Your task to perform on an android device: change alarm snooze length Image 0: 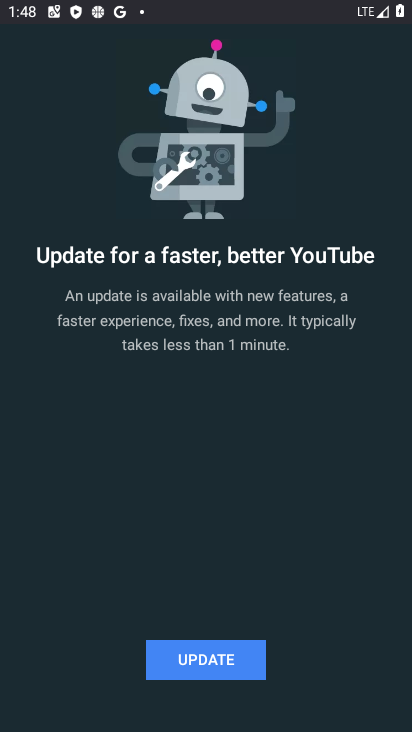
Step 0: press back button
Your task to perform on an android device: change alarm snooze length Image 1: 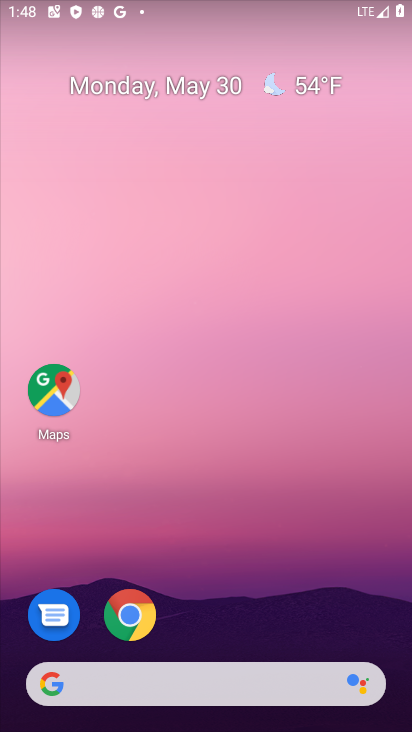
Step 1: drag from (278, 547) to (271, 10)
Your task to perform on an android device: change alarm snooze length Image 2: 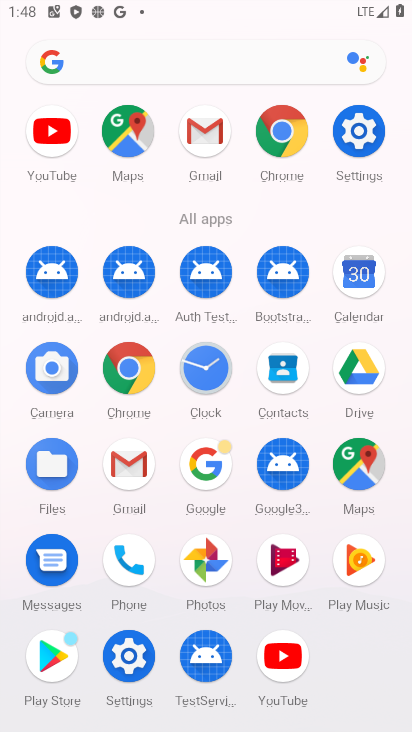
Step 2: click (213, 387)
Your task to perform on an android device: change alarm snooze length Image 3: 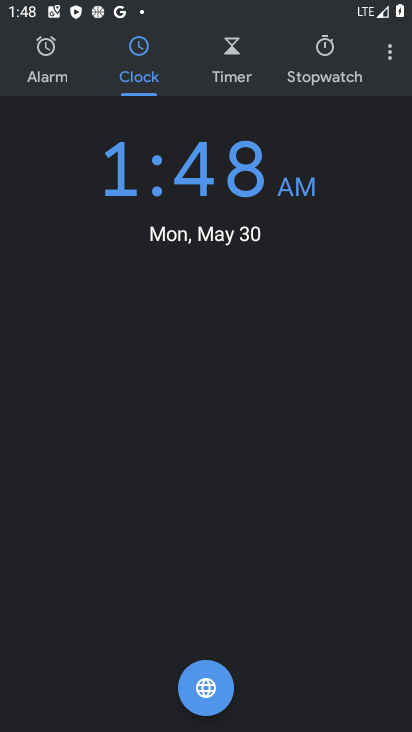
Step 3: click (410, 76)
Your task to perform on an android device: change alarm snooze length Image 4: 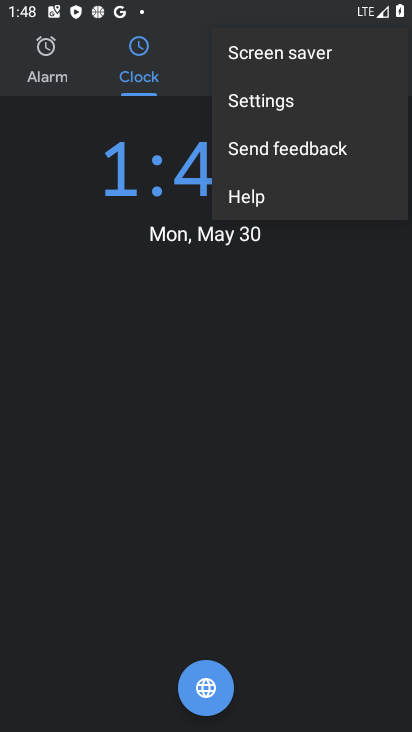
Step 4: click (275, 109)
Your task to perform on an android device: change alarm snooze length Image 5: 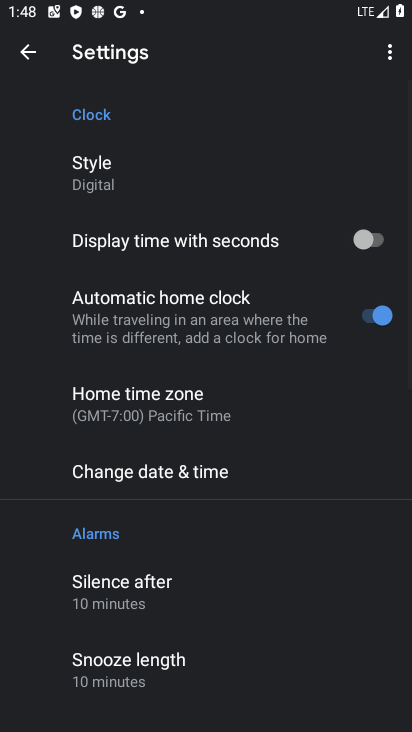
Step 5: drag from (212, 605) to (192, 412)
Your task to perform on an android device: change alarm snooze length Image 6: 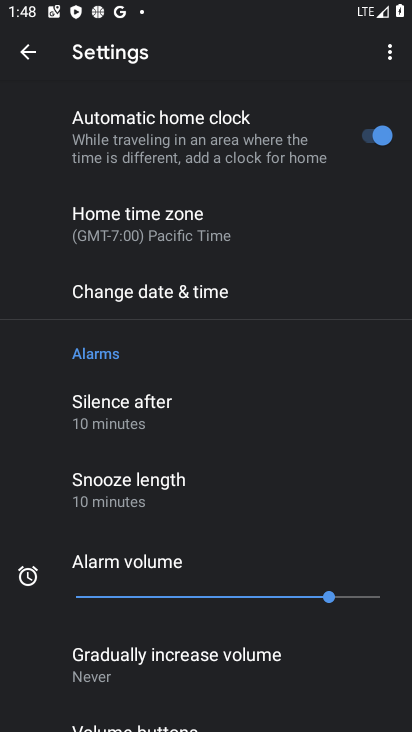
Step 6: click (168, 494)
Your task to perform on an android device: change alarm snooze length Image 7: 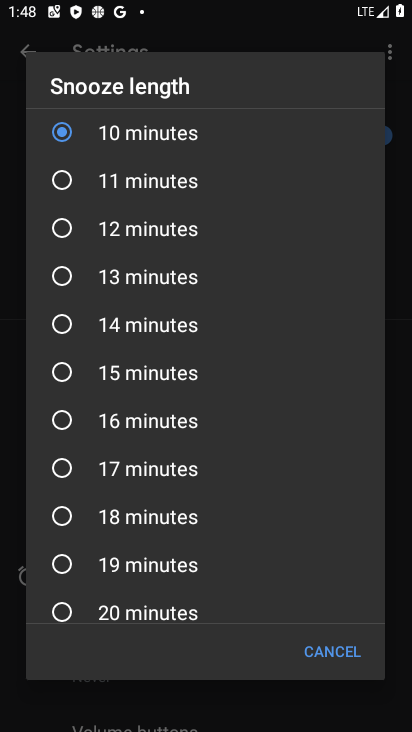
Step 7: click (125, 374)
Your task to perform on an android device: change alarm snooze length Image 8: 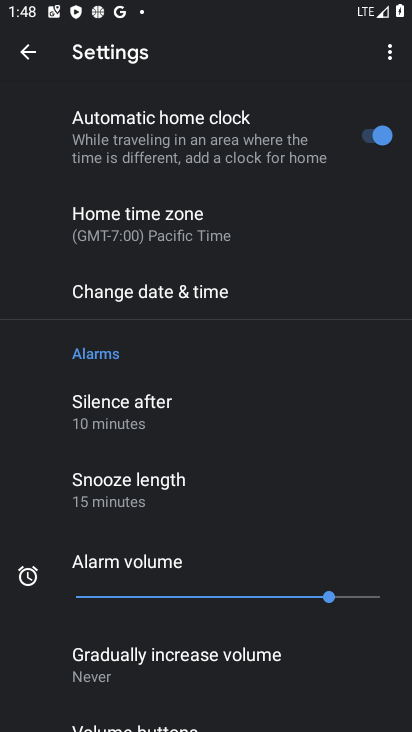
Step 8: task complete